Your task to perform on an android device: Show the shopping cart on amazon. Search for asus rog on amazon, select the first entry, add it to the cart, then select checkout. Image 0: 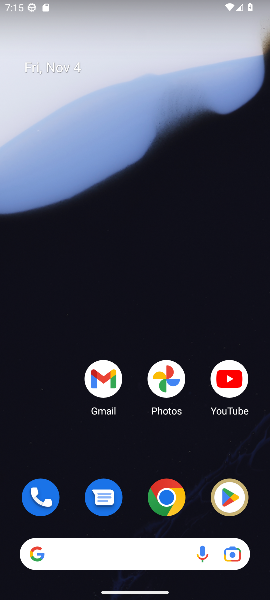
Step 0: click (157, 503)
Your task to perform on an android device: Show the shopping cart on amazon. Search for asus rog on amazon, select the first entry, add it to the cart, then select checkout. Image 1: 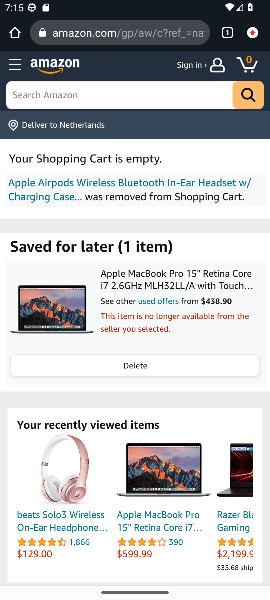
Step 1: click (247, 65)
Your task to perform on an android device: Show the shopping cart on amazon. Search for asus rog on amazon, select the first entry, add it to the cart, then select checkout. Image 2: 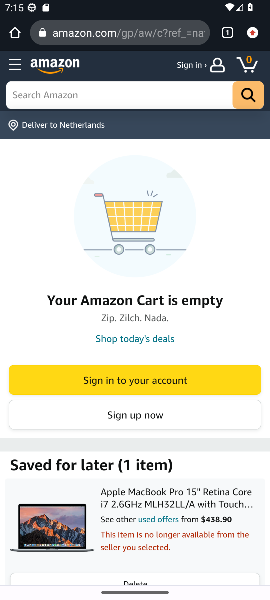
Step 2: type "asus rog"
Your task to perform on an android device: Show the shopping cart on amazon. Search for asus rog on amazon, select the first entry, add it to the cart, then select checkout. Image 3: 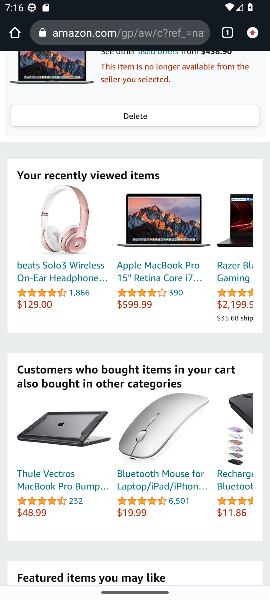
Step 3: drag from (157, 201) to (131, 489)
Your task to perform on an android device: Show the shopping cart on amazon. Search for asus rog on amazon, select the first entry, add it to the cart, then select checkout. Image 4: 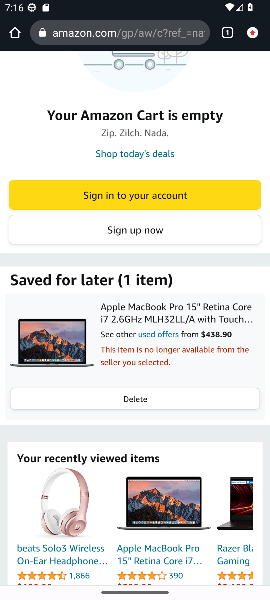
Step 4: drag from (140, 158) to (134, 502)
Your task to perform on an android device: Show the shopping cart on amazon. Search for asus rog on amazon, select the first entry, add it to the cart, then select checkout. Image 5: 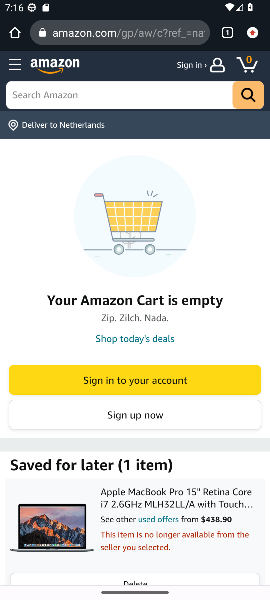
Step 5: click (100, 102)
Your task to perform on an android device: Show the shopping cart on amazon. Search for asus rog on amazon, select the first entry, add it to the cart, then select checkout. Image 6: 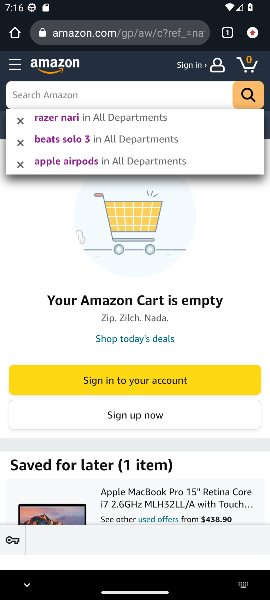
Step 6: type "asus rog"
Your task to perform on an android device: Show the shopping cart on amazon. Search for asus rog on amazon, select the first entry, add it to the cart, then select checkout. Image 7: 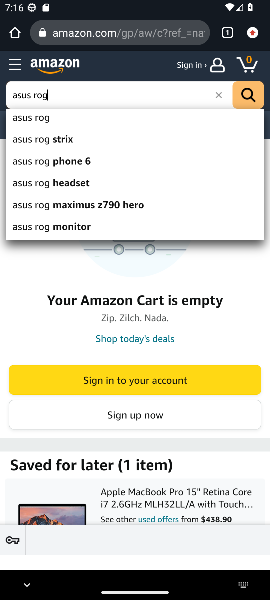
Step 7: click (20, 117)
Your task to perform on an android device: Show the shopping cart on amazon. Search for asus rog on amazon, select the first entry, add it to the cart, then select checkout. Image 8: 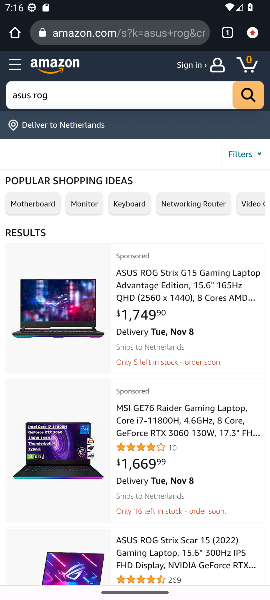
Step 8: click (140, 297)
Your task to perform on an android device: Show the shopping cart on amazon. Search for asus rog on amazon, select the first entry, add it to the cart, then select checkout. Image 9: 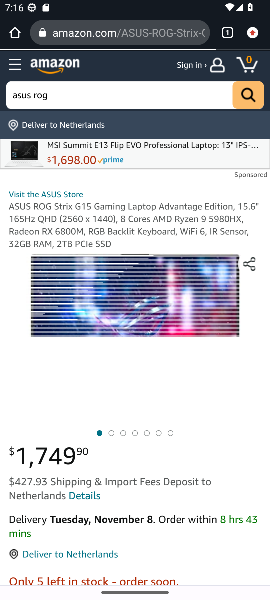
Step 9: drag from (161, 492) to (206, 227)
Your task to perform on an android device: Show the shopping cart on amazon. Search for asus rog on amazon, select the first entry, add it to the cart, then select checkout. Image 10: 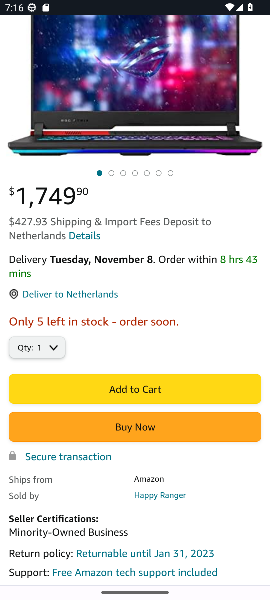
Step 10: click (124, 388)
Your task to perform on an android device: Show the shopping cart on amazon. Search for asus rog on amazon, select the first entry, add it to the cart, then select checkout. Image 11: 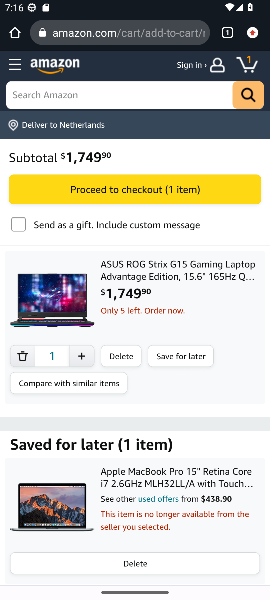
Step 11: click (131, 191)
Your task to perform on an android device: Show the shopping cart on amazon. Search for asus rog on amazon, select the first entry, add it to the cart, then select checkout. Image 12: 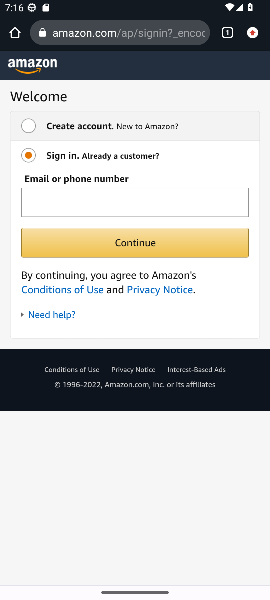
Step 12: task complete